Your task to perform on an android device: Open Wikipedia Image 0: 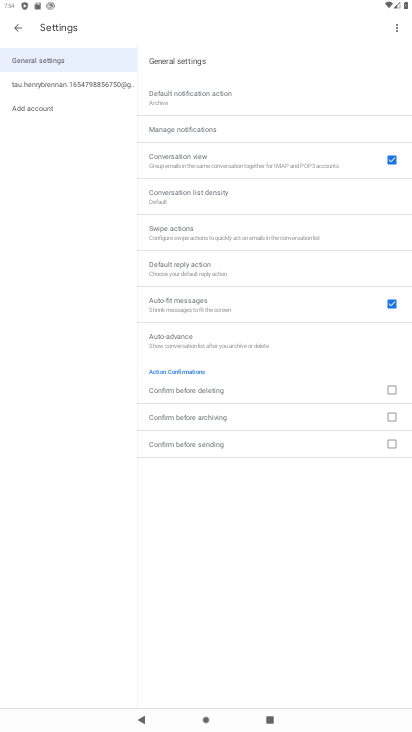
Step 0: press home button
Your task to perform on an android device: Open Wikipedia Image 1: 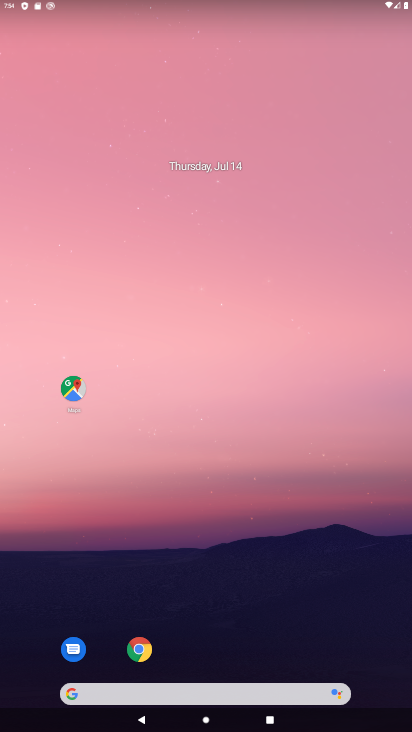
Step 1: click (147, 648)
Your task to perform on an android device: Open Wikipedia Image 2: 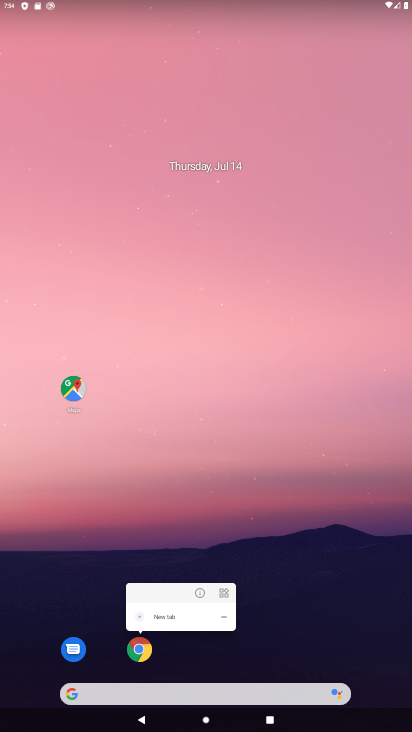
Step 2: click (148, 644)
Your task to perform on an android device: Open Wikipedia Image 3: 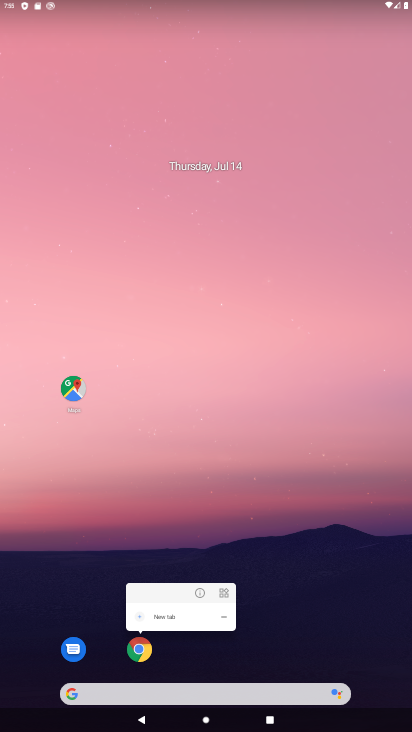
Step 3: click (145, 654)
Your task to perform on an android device: Open Wikipedia Image 4: 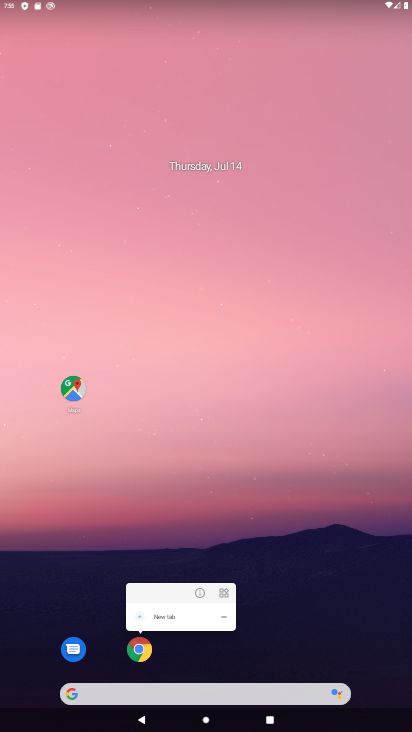
Step 4: click (132, 653)
Your task to perform on an android device: Open Wikipedia Image 5: 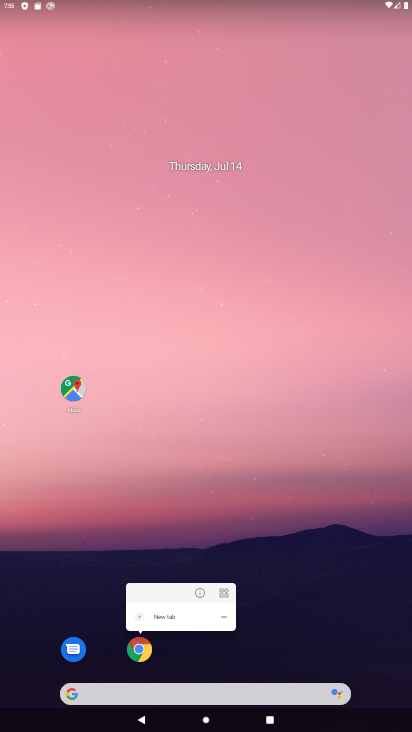
Step 5: click (147, 651)
Your task to perform on an android device: Open Wikipedia Image 6: 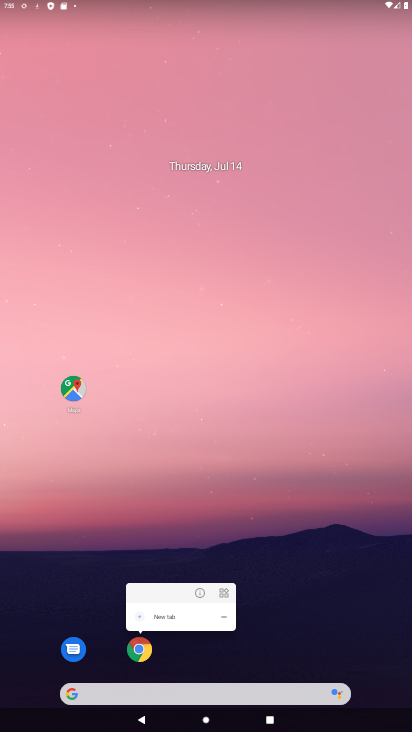
Step 6: click (144, 644)
Your task to perform on an android device: Open Wikipedia Image 7: 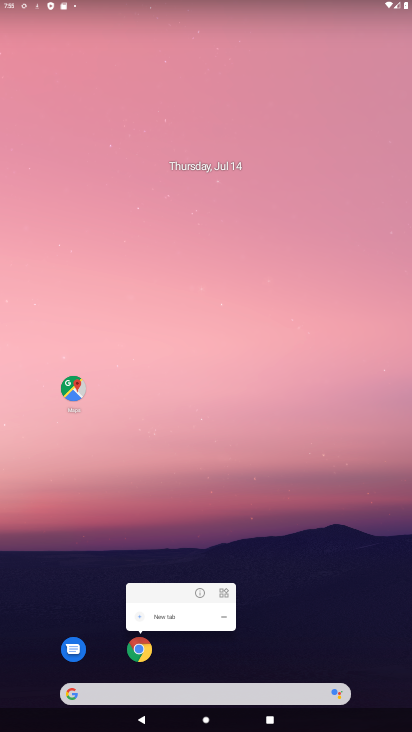
Step 7: click (142, 650)
Your task to perform on an android device: Open Wikipedia Image 8: 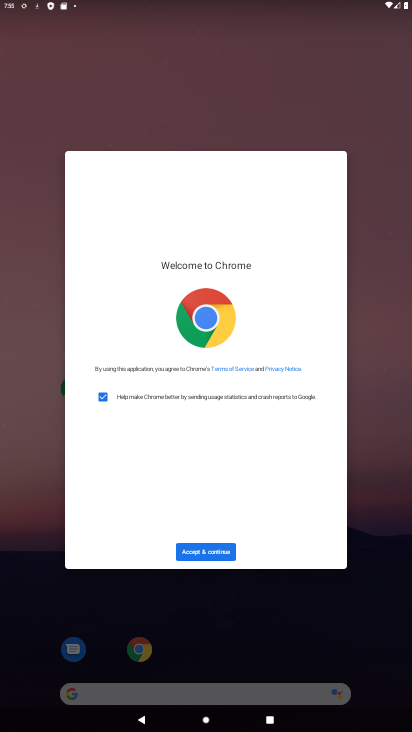
Step 8: click (206, 556)
Your task to perform on an android device: Open Wikipedia Image 9: 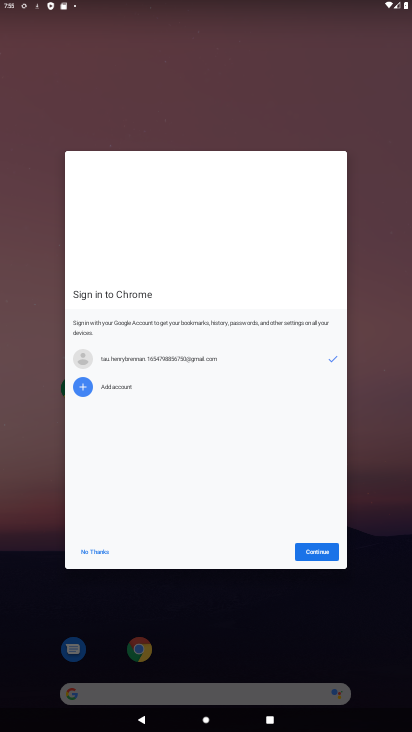
Step 9: click (317, 559)
Your task to perform on an android device: Open Wikipedia Image 10: 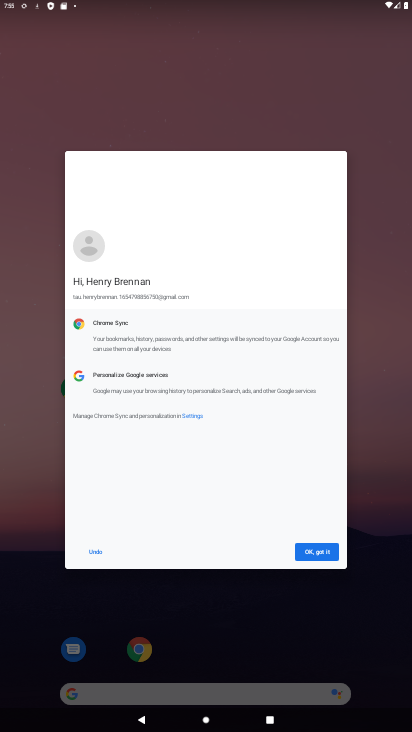
Step 10: click (315, 559)
Your task to perform on an android device: Open Wikipedia Image 11: 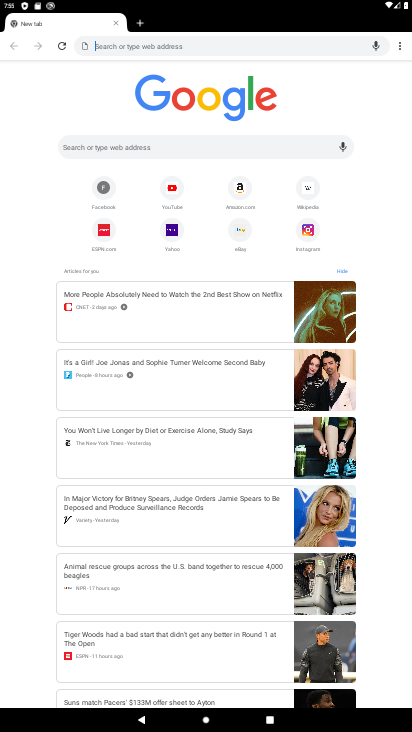
Step 11: click (308, 193)
Your task to perform on an android device: Open Wikipedia Image 12: 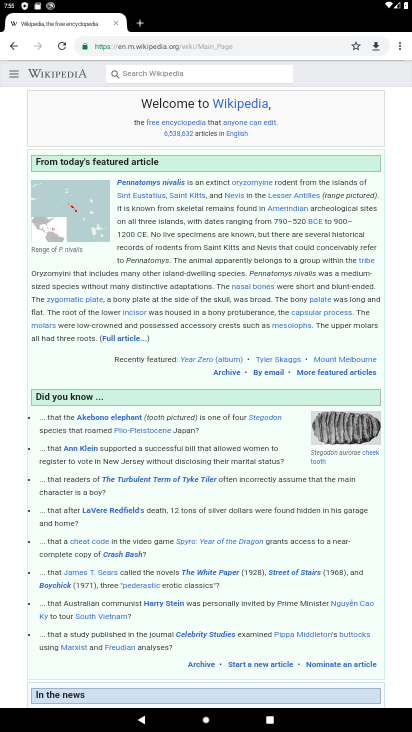
Step 12: task complete